Your task to perform on an android device: empty trash in the gmail app Image 0: 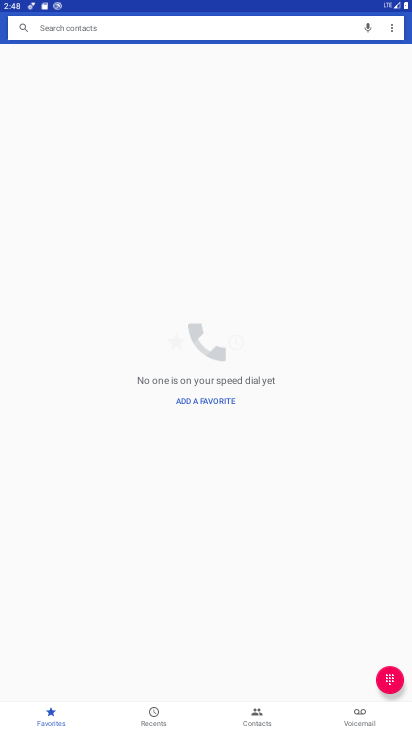
Step 0: press home button
Your task to perform on an android device: empty trash in the gmail app Image 1: 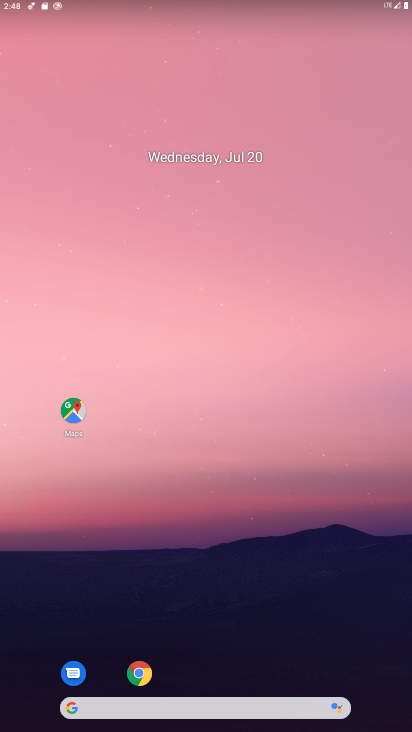
Step 1: drag from (210, 639) to (227, 86)
Your task to perform on an android device: empty trash in the gmail app Image 2: 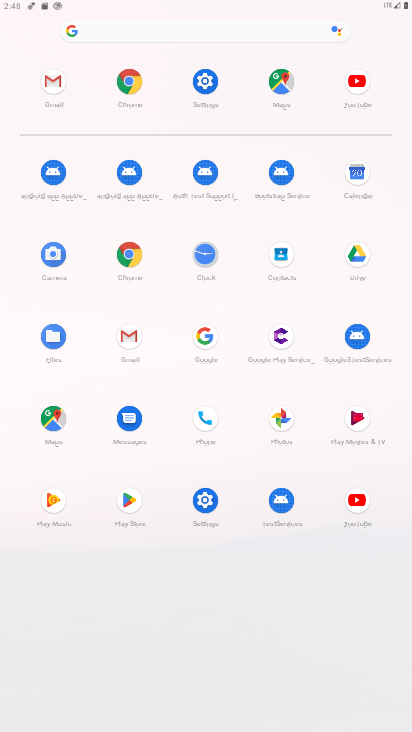
Step 2: click (135, 343)
Your task to perform on an android device: empty trash in the gmail app Image 3: 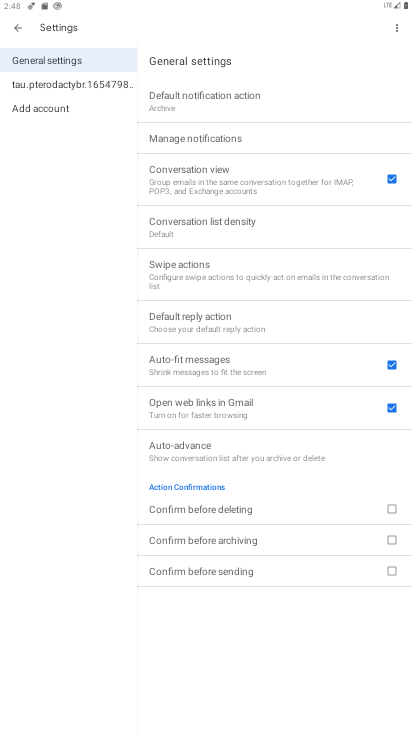
Step 3: click (0, 11)
Your task to perform on an android device: empty trash in the gmail app Image 4: 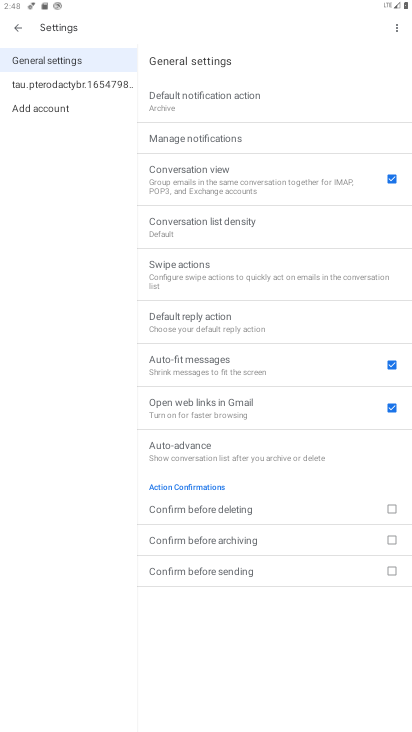
Step 4: click (12, 17)
Your task to perform on an android device: empty trash in the gmail app Image 5: 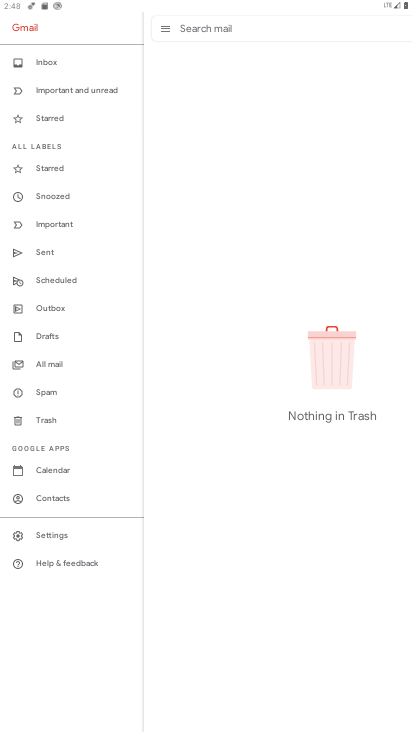
Step 5: click (60, 420)
Your task to perform on an android device: empty trash in the gmail app Image 6: 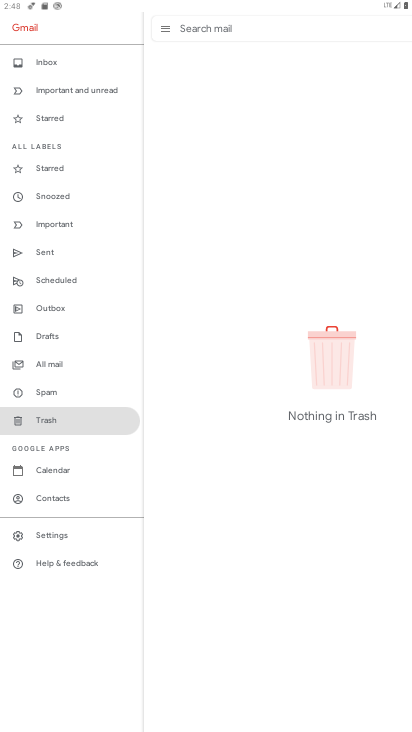
Step 6: task complete